Your task to perform on an android device: check out phone information Image 0: 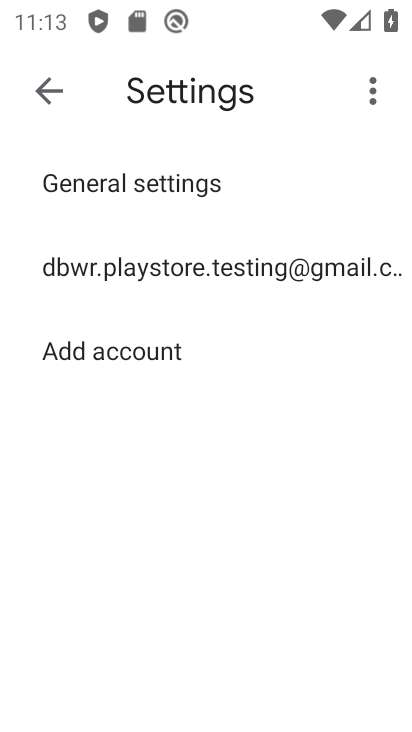
Step 0: press back button
Your task to perform on an android device: check out phone information Image 1: 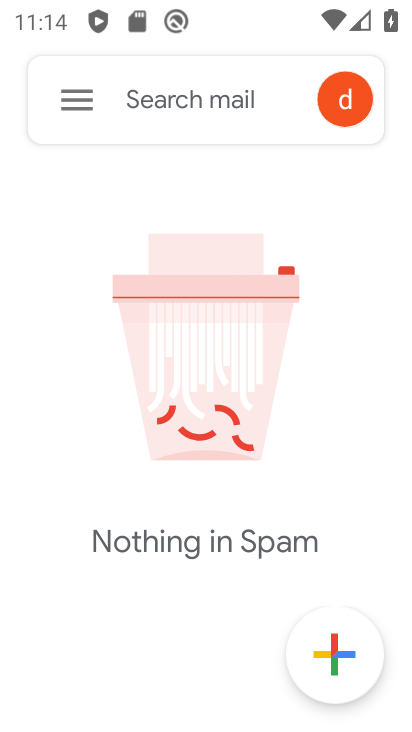
Step 1: press back button
Your task to perform on an android device: check out phone information Image 2: 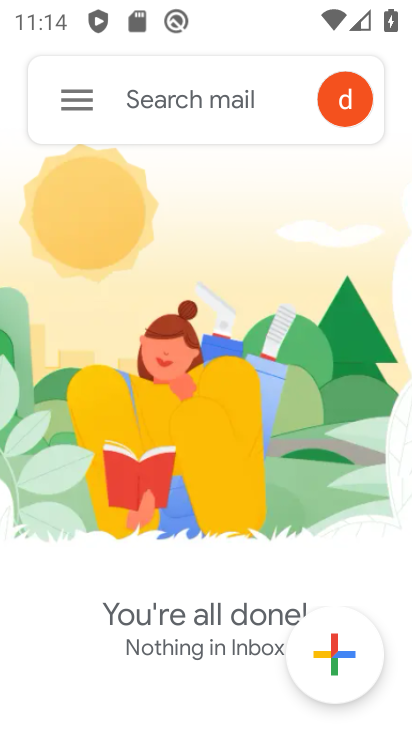
Step 2: press back button
Your task to perform on an android device: check out phone information Image 3: 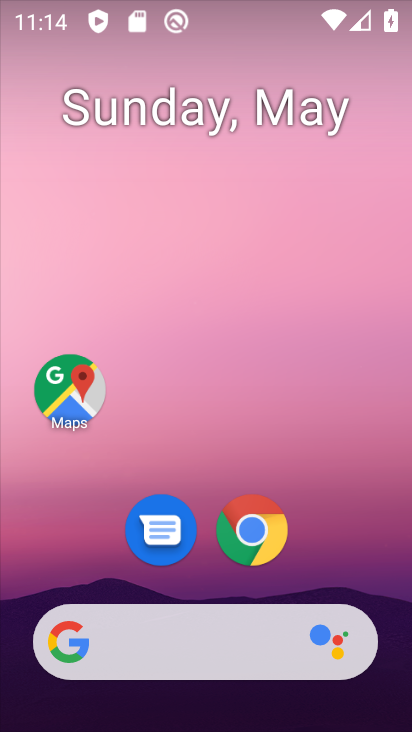
Step 3: drag from (184, 427) to (249, 5)
Your task to perform on an android device: check out phone information Image 4: 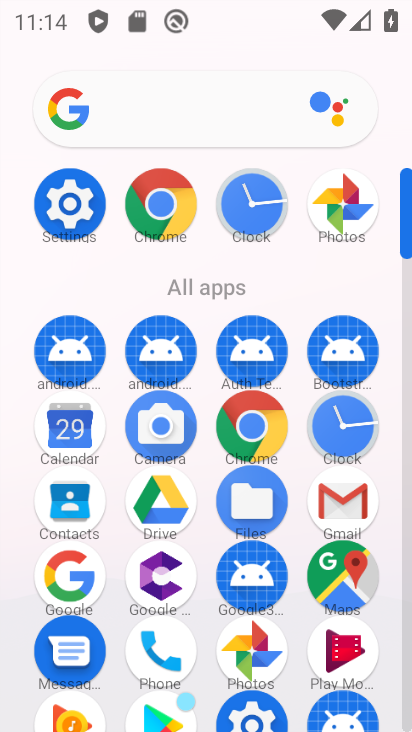
Step 4: click (74, 205)
Your task to perform on an android device: check out phone information Image 5: 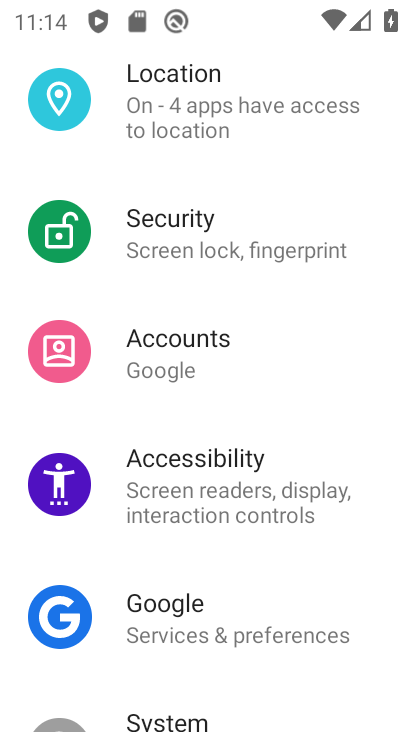
Step 5: drag from (246, 656) to (303, 57)
Your task to perform on an android device: check out phone information Image 6: 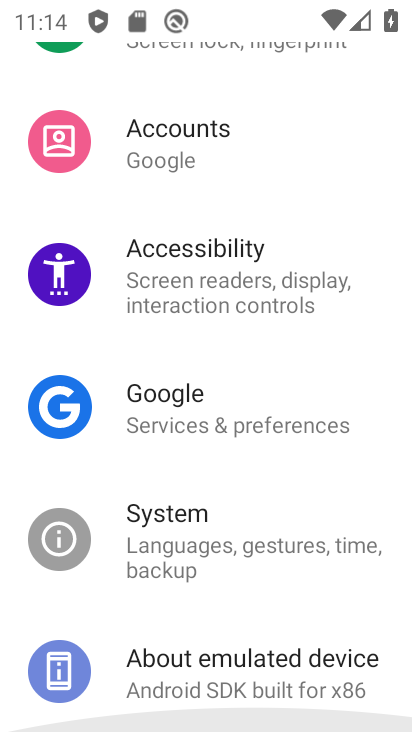
Step 6: drag from (205, 611) to (270, 60)
Your task to perform on an android device: check out phone information Image 7: 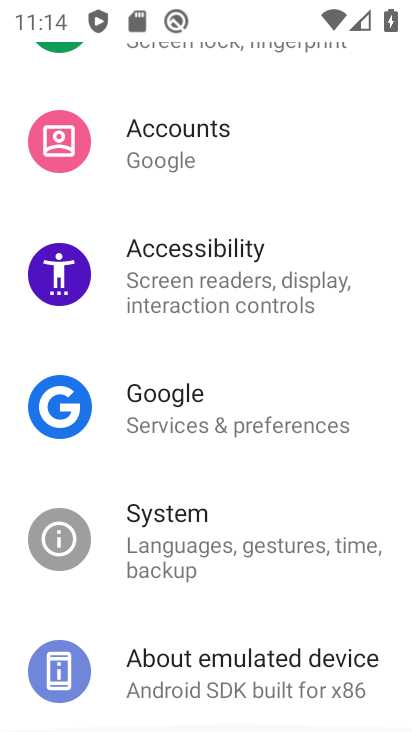
Step 7: click (190, 695)
Your task to perform on an android device: check out phone information Image 8: 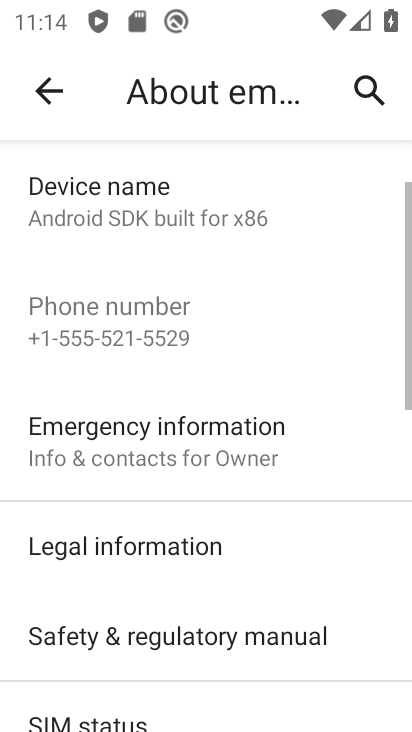
Step 8: task complete